Your task to perform on an android device: visit the assistant section in the google photos Image 0: 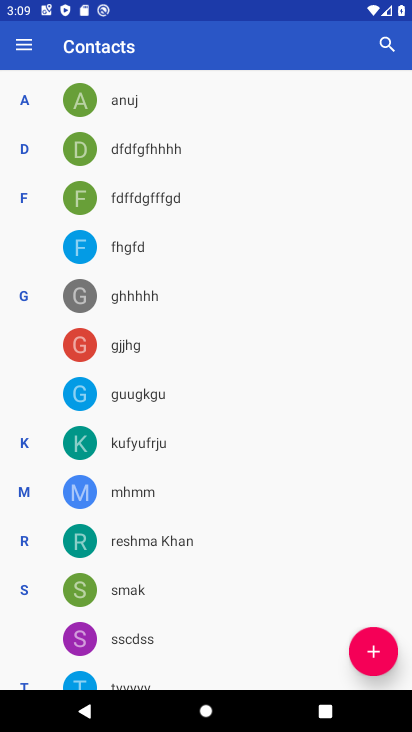
Step 0: press home button
Your task to perform on an android device: visit the assistant section in the google photos Image 1: 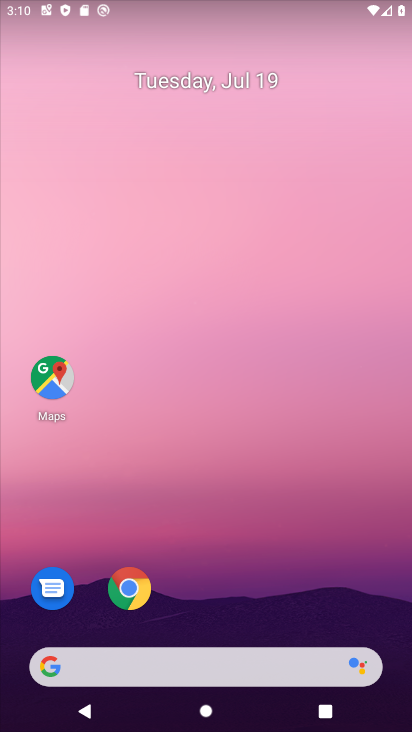
Step 1: drag from (207, 579) to (186, 116)
Your task to perform on an android device: visit the assistant section in the google photos Image 2: 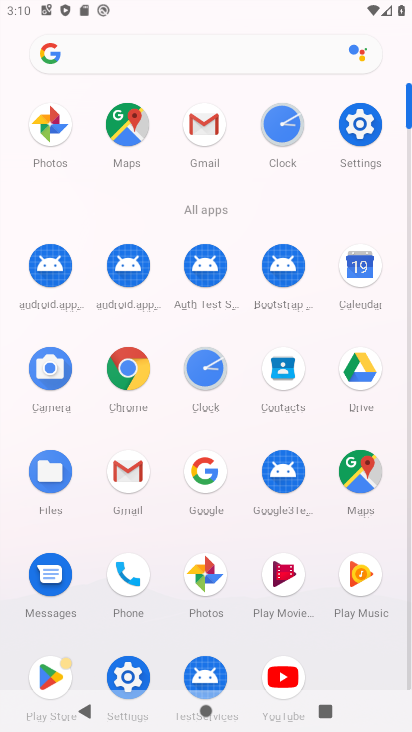
Step 2: click (219, 577)
Your task to perform on an android device: visit the assistant section in the google photos Image 3: 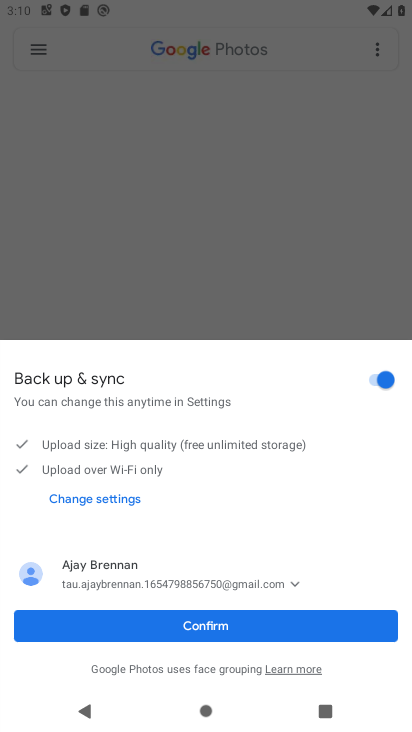
Step 3: click (210, 626)
Your task to perform on an android device: visit the assistant section in the google photos Image 4: 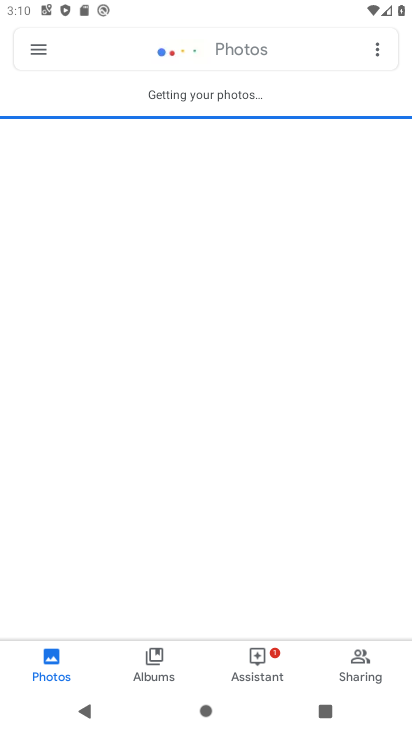
Step 4: click (243, 666)
Your task to perform on an android device: visit the assistant section in the google photos Image 5: 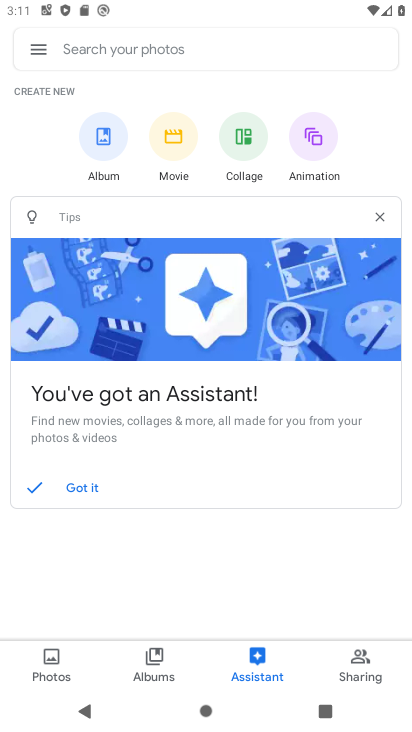
Step 5: task complete